Your task to perform on an android device: What's on my calendar today? Image 0: 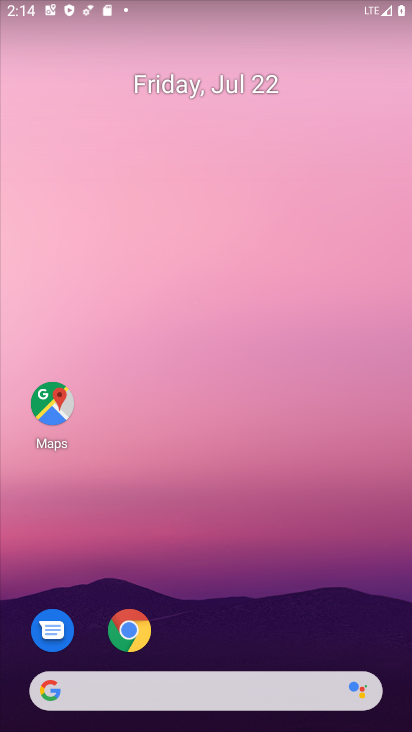
Step 0: drag from (215, 669) to (143, 66)
Your task to perform on an android device: What's on my calendar today? Image 1: 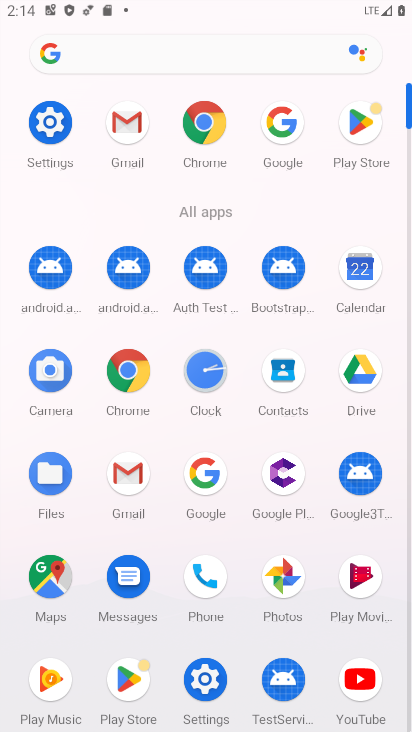
Step 1: click (361, 278)
Your task to perform on an android device: What's on my calendar today? Image 2: 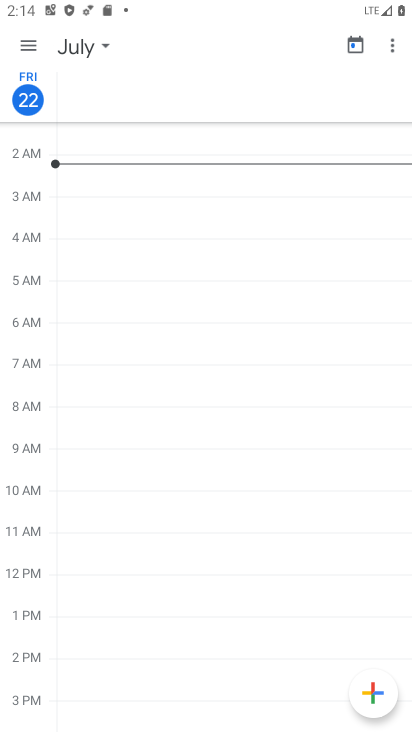
Step 2: click (23, 54)
Your task to perform on an android device: What's on my calendar today? Image 3: 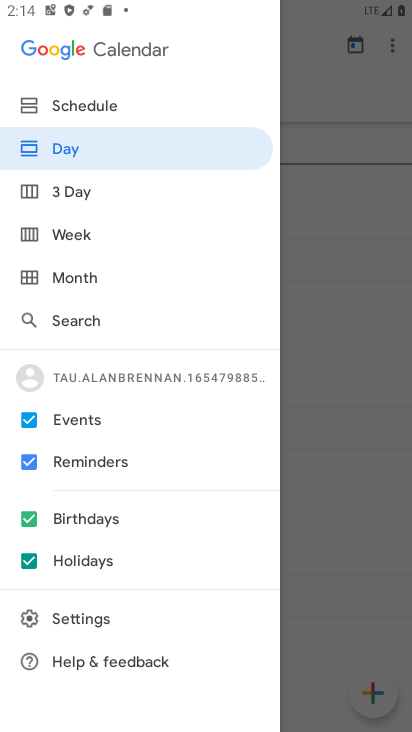
Step 3: click (78, 229)
Your task to perform on an android device: What's on my calendar today? Image 4: 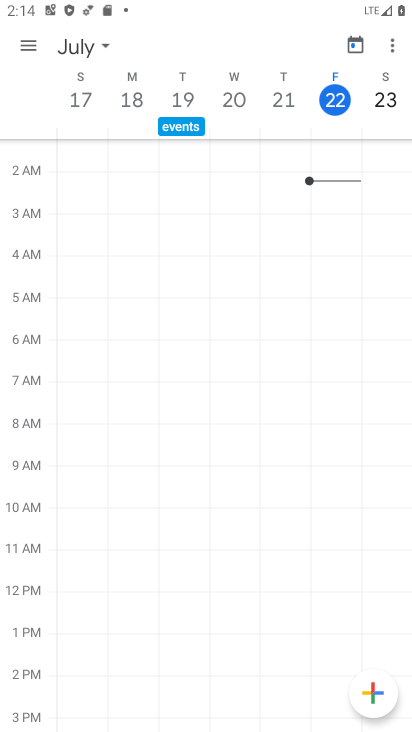
Step 4: click (334, 98)
Your task to perform on an android device: What's on my calendar today? Image 5: 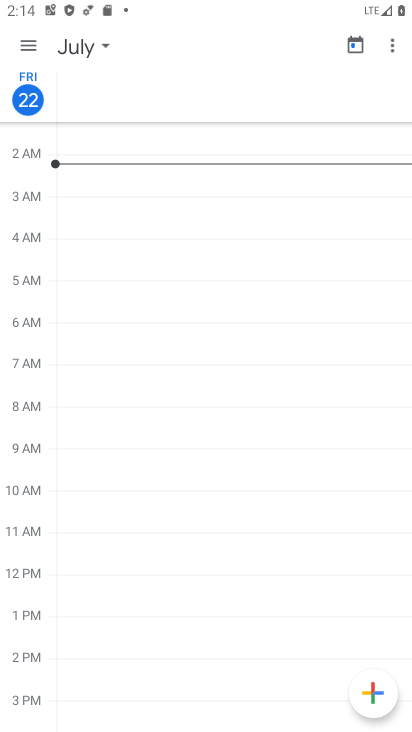
Step 5: task complete